Your task to perform on an android device: turn on improve location accuracy Image 0: 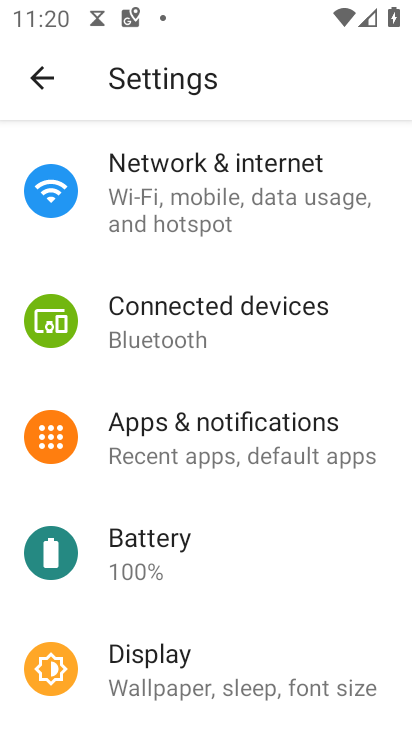
Step 0: press home button
Your task to perform on an android device: turn on improve location accuracy Image 1: 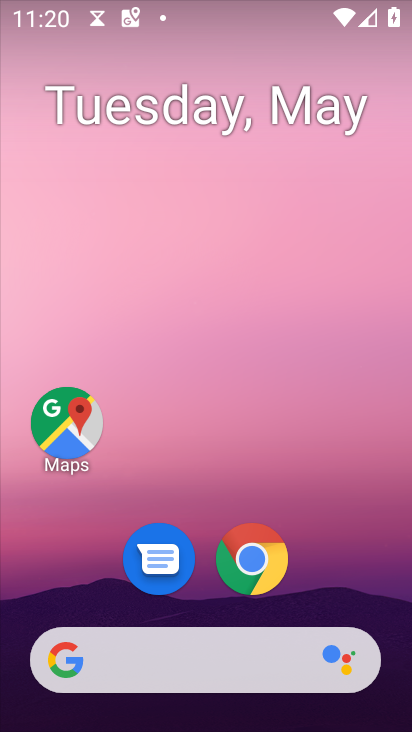
Step 1: drag from (351, 597) to (382, 43)
Your task to perform on an android device: turn on improve location accuracy Image 2: 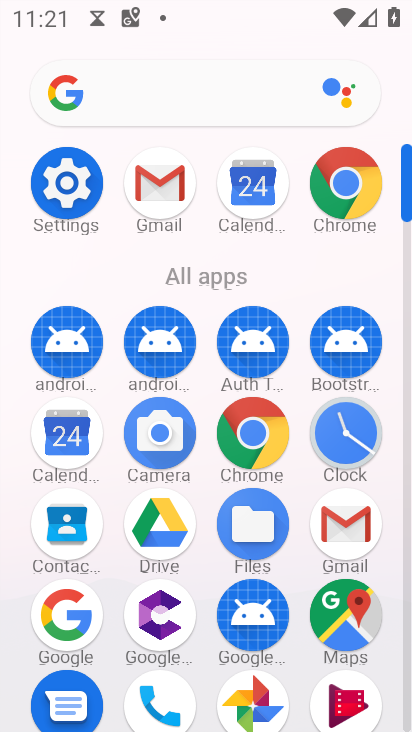
Step 2: click (72, 191)
Your task to perform on an android device: turn on improve location accuracy Image 3: 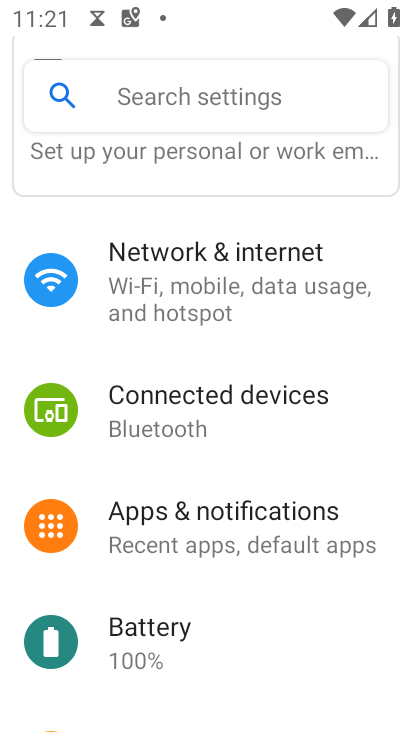
Step 3: drag from (186, 676) to (230, 222)
Your task to perform on an android device: turn on improve location accuracy Image 4: 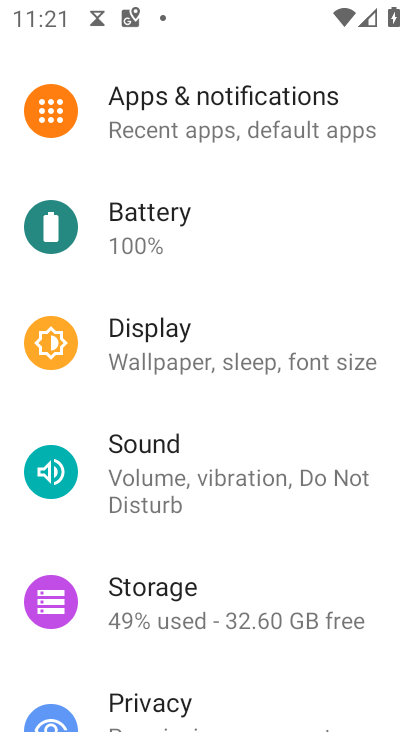
Step 4: drag from (216, 613) to (278, 177)
Your task to perform on an android device: turn on improve location accuracy Image 5: 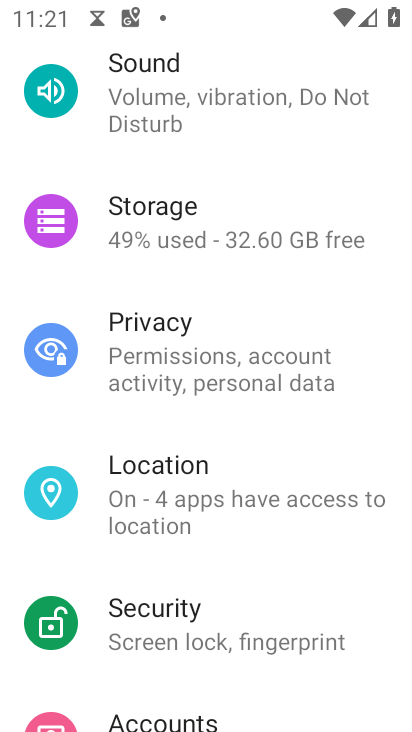
Step 5: click (163, 495)
Your task to perform on an android device: turn on improve location accuracy Image 6: 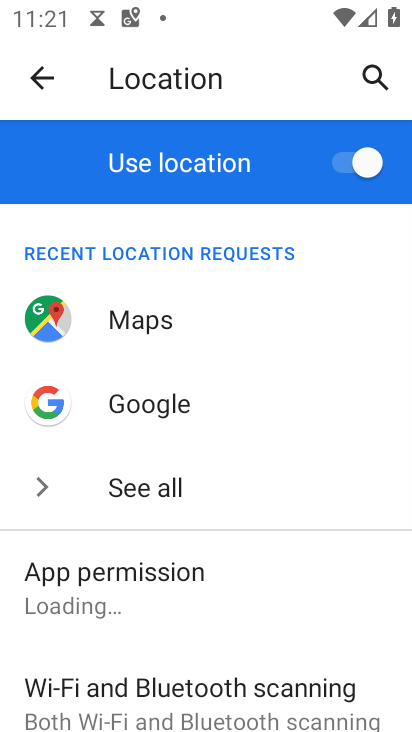
Step 6: drag from (252, 679) to (242, 262)
Your task to perform on an android device: turn on improve location accuracy Image 7: 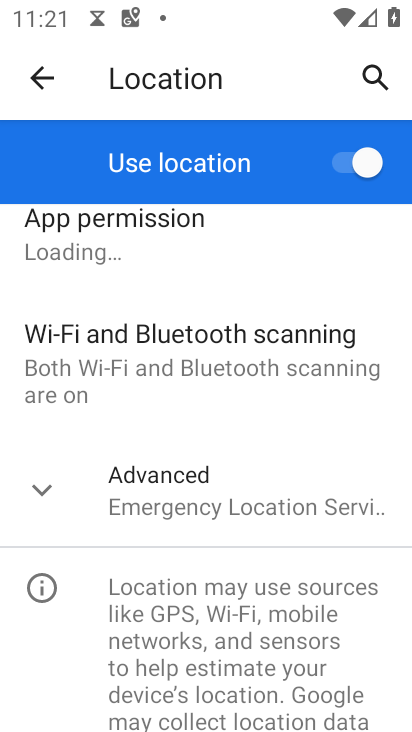
Step 7: click (203, 482)
Your task to perform on an android device: turn on improve location accuracy Image 8: 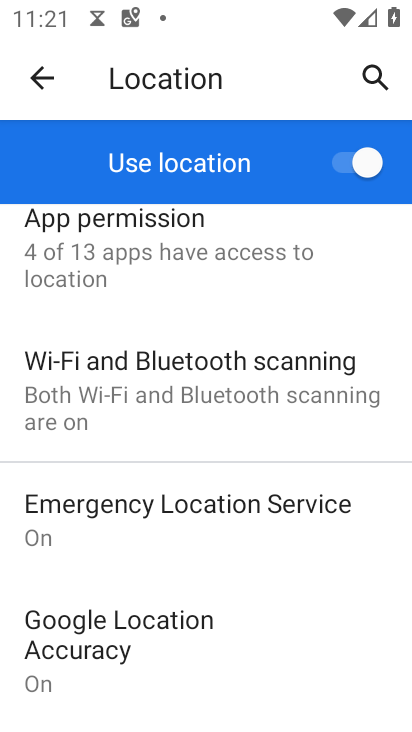
Step 8: drag from (199, 645) to (252, 292)
Your task to perform on an android device: turn on improve location accuracy Image 9: 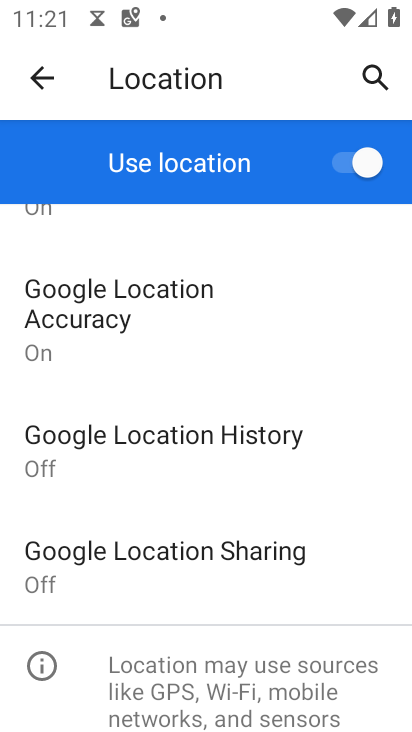
Step 9: click (74, 307)
Your task to perform on an android device: turn on improve location accuracy Image 10: 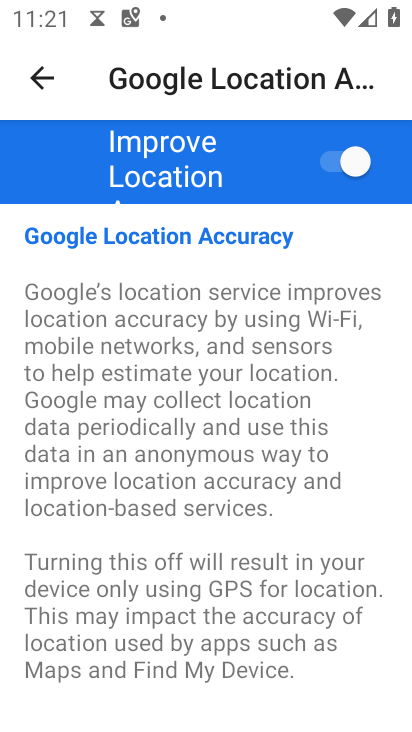
Step 10: task complete